Your task to perform on an android device: check data usage Image 0: 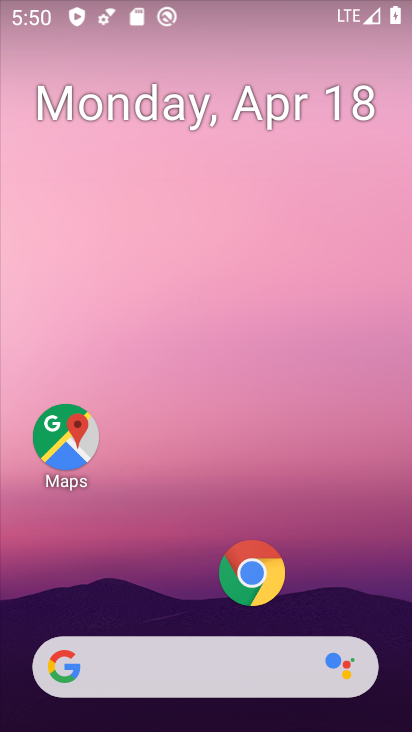
Step 0: drag from (164, 592) to (279, 93)
Your task to perform on an android device: check data usage Image 1: 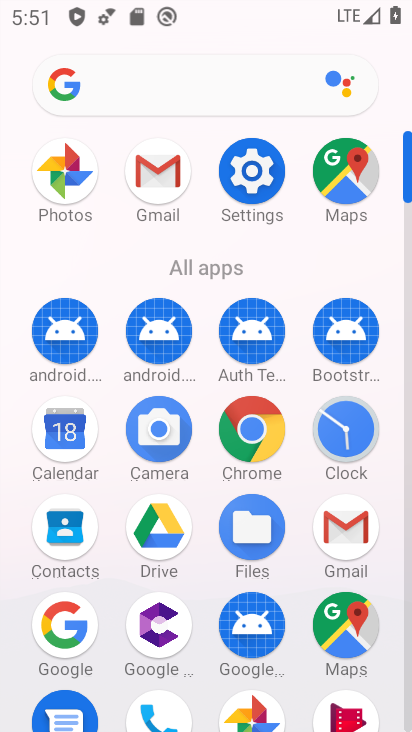
Step 1: click (256, 189)
Your task to perform on an android device: check data usage Image 2: 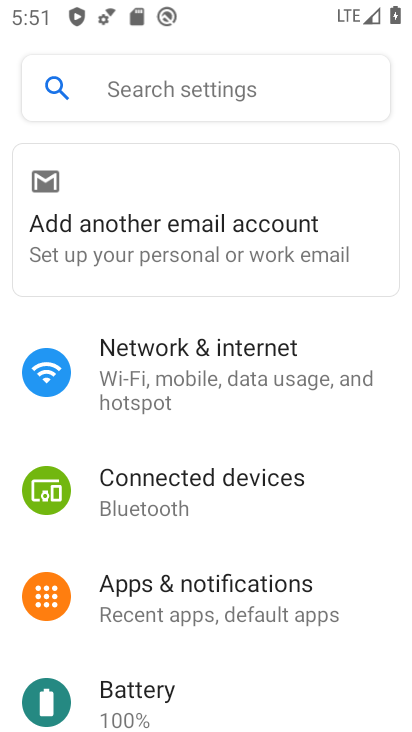
Step 2: click (168, 397)
Your task to perform on an android device: check data usage Image 3: 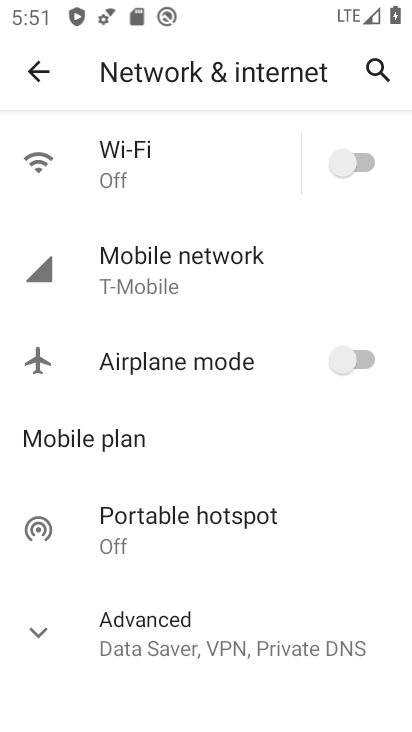
Step 3: click (176, 282)
Your task to perform on an android device: check data usage Image 4: 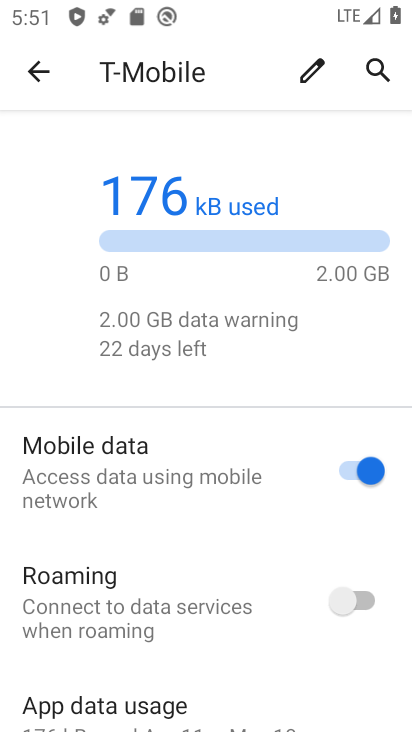
Step 4: drag from (210, 522) to (277, 183)
Your task to perform on an android device: check data usage Image 5: 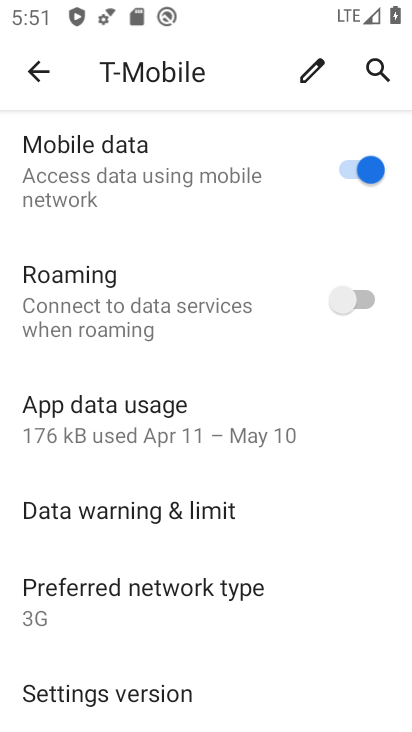
Step 5: click (161, 435)
Your task to perform on an android device: check data usage Image 6: 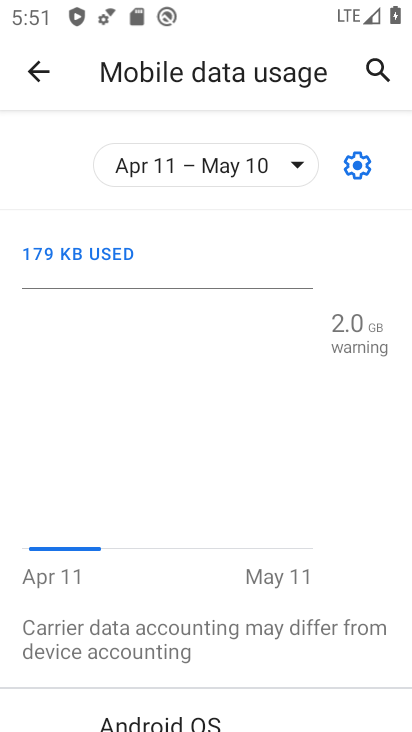
Step 6: task complete